Your task to perform on an android device: Go to Wikipedia Image 0: 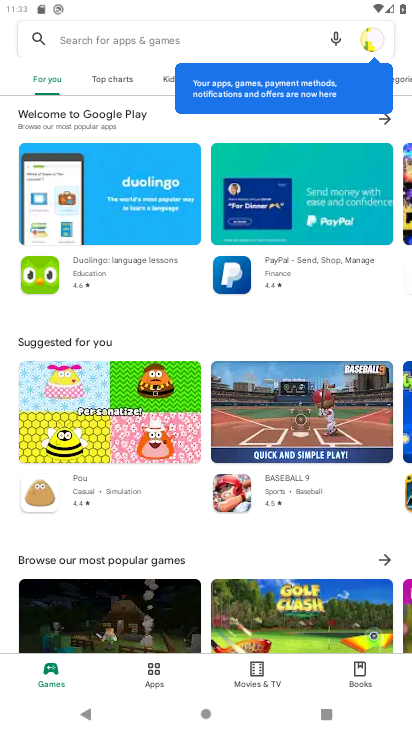
Step 0: press home button
Your task to perform on an android device: Go to Wikipedia Image 1: 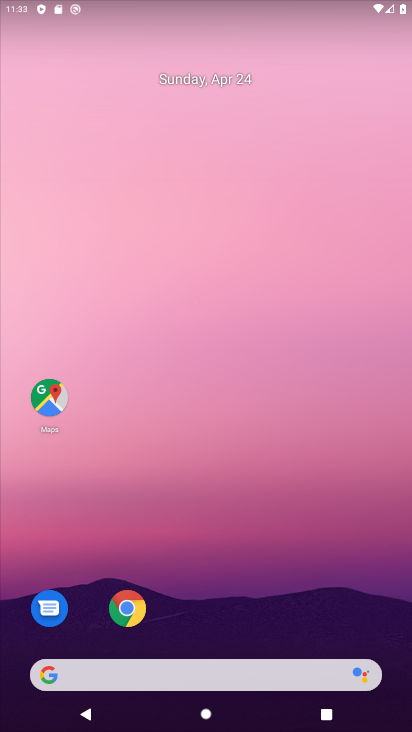
Step 1: click (126, 607)
Your task to perform on an android device: Go to Wikipedia Image 2: 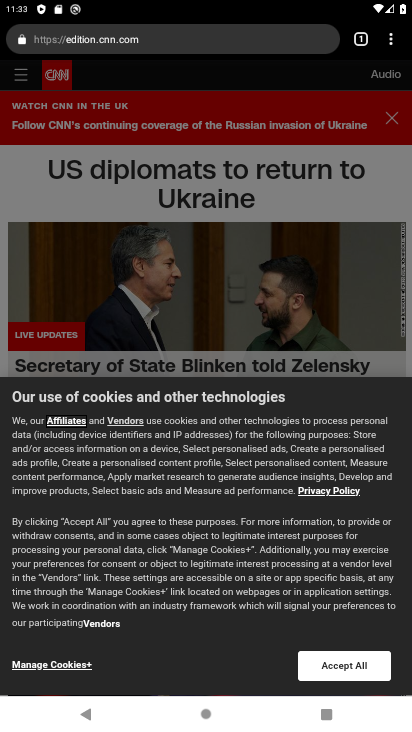
Step 2: drag from (390, 42) to (299, 88)
Your task to perform on an android device: Go to Wikipedia Image 3: 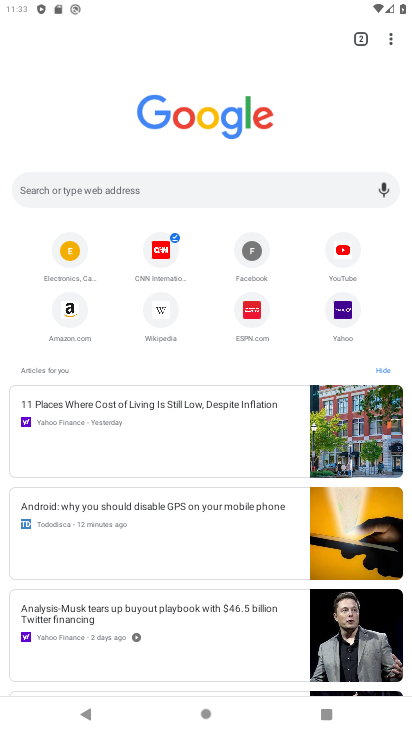
Step 3: click (161, 309)
Your task to perform on an android device: Go to Wikipedia Image 4: 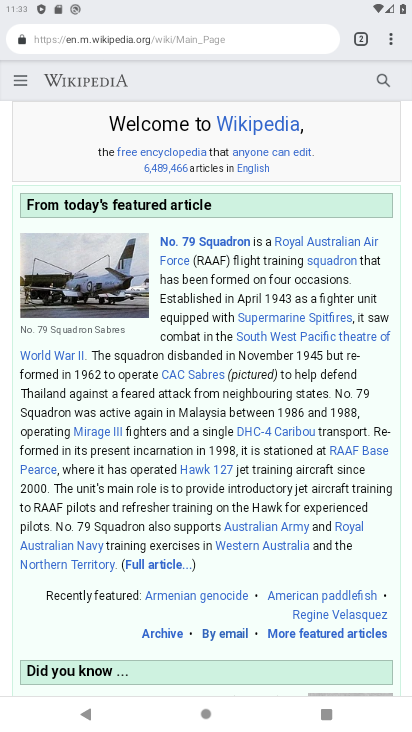
Step 4: task complete